Your task to perform on an android device: delete a single message in the gmail app Image 0: 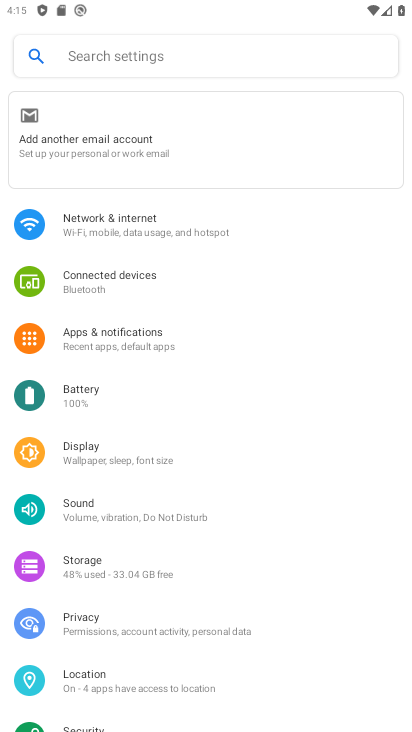
Step 0: press home button
Your task to perform on an android device: delete a single message in the gmail app Image 1: 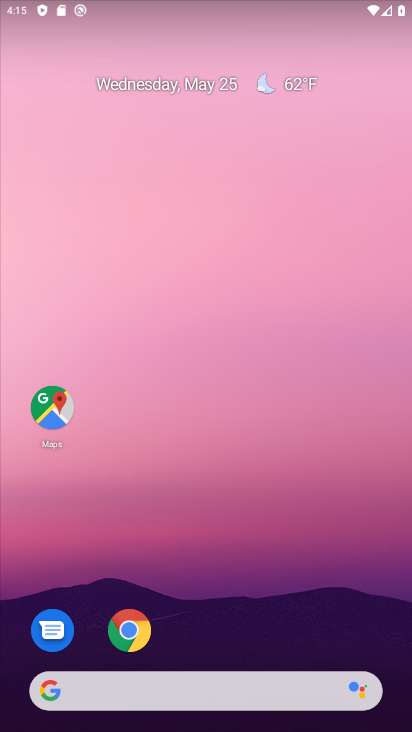
Step 1: drag from (187, 597) to (272, 54)
Your task to perform on an android device: delete a single message in the gmail app Image 2: 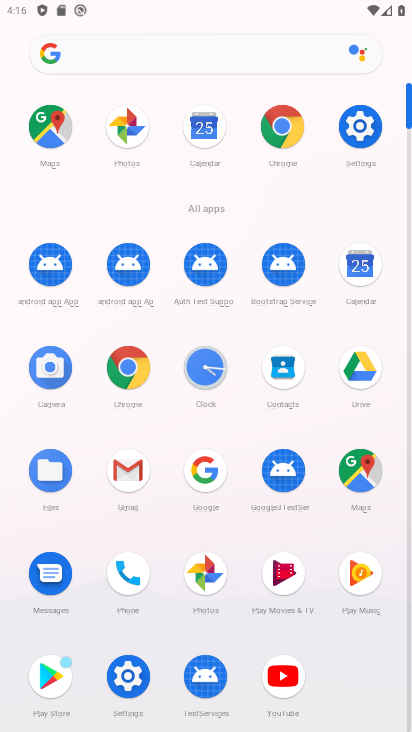
Step 2: click (117, 475)
Your task to perform on an android device: delete a single message in the gmail app Image 3: 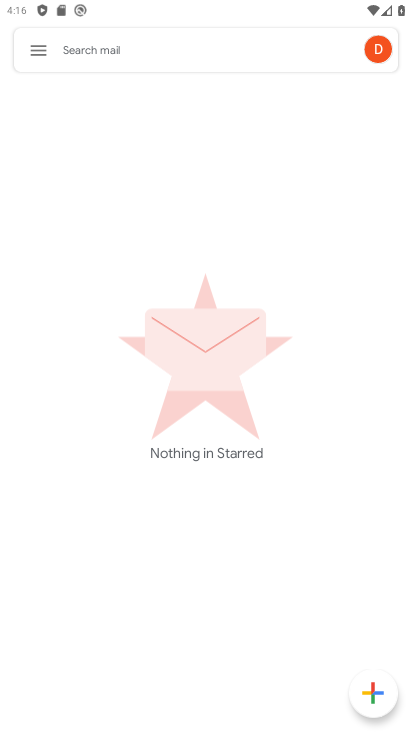
Step 3: click (32, 50)
Your task to perform on an android device: delete a single message in the gmail app Image 4: 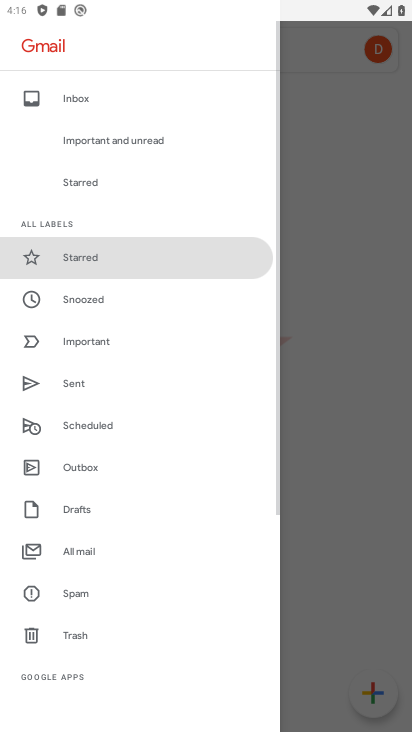
Step 4: click (89, 540)
Your task to perform on an android device: delete a single message in the gmail app Image 5: 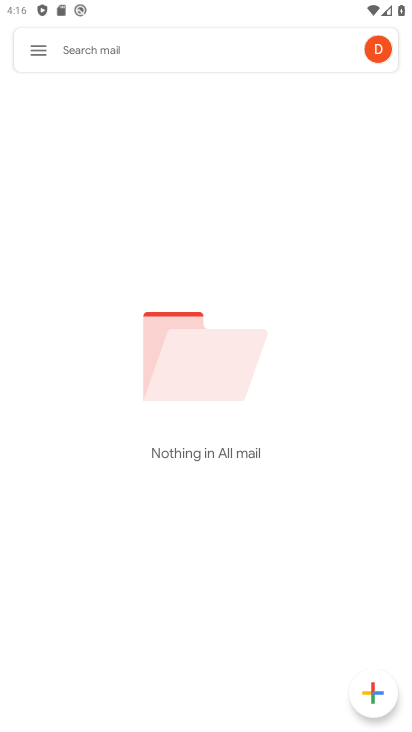
Step 5: task complete